Your task to perform on an android device: Search for pizza restaurants on Maps Image 0: 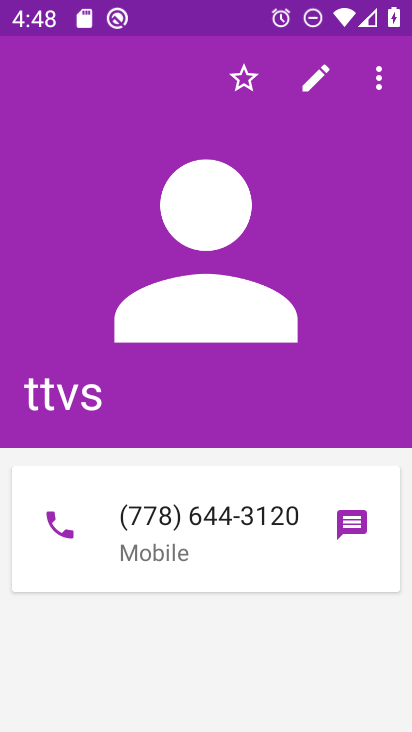
Step 0: press home button
Your task to perform on an android device: Search for pizza restaurants on Maps Image 1: 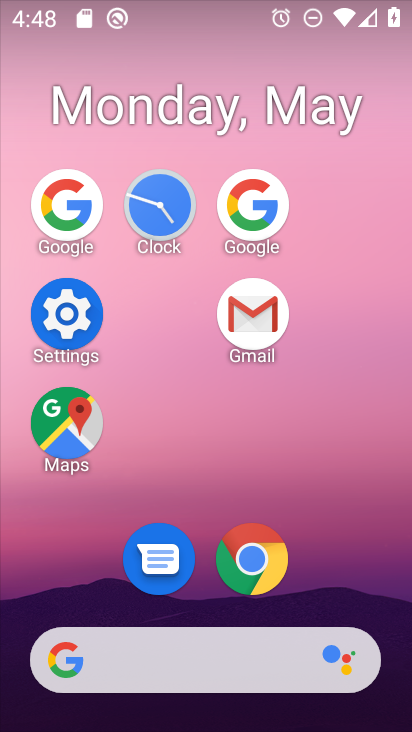
Step 1: click (83, 417)
Your task to perform on an android device: Search for pizza restaurants on Maps Image 2: 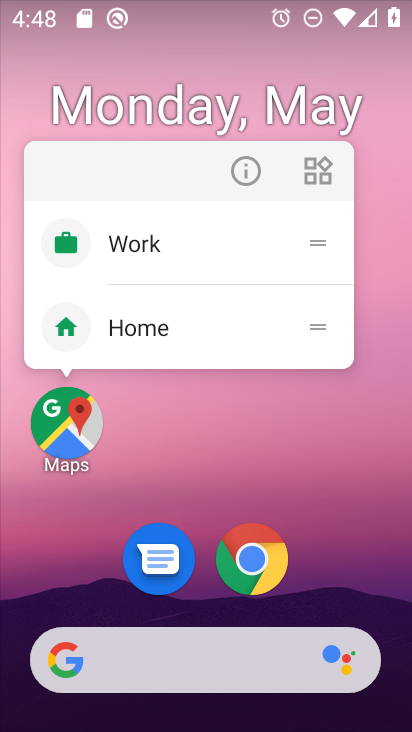
Step 2: click (17, 455)
Your task to perform on an android device: Search for pizza restaurants on Maps Image 3: 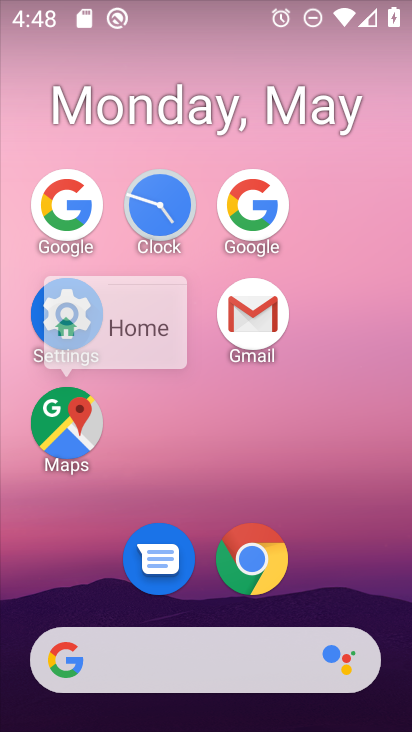
Step 3: click (98, 415)
Your task to perform on an android device: Search for pizza restaurants on Maps Image 4: 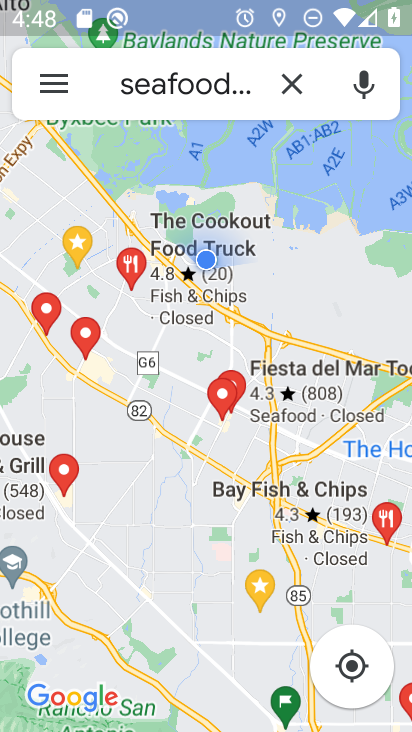
Step 4: click (150, 78)
Your task to perform on an android device: Search for pizza restaurants on Maps Image 5: 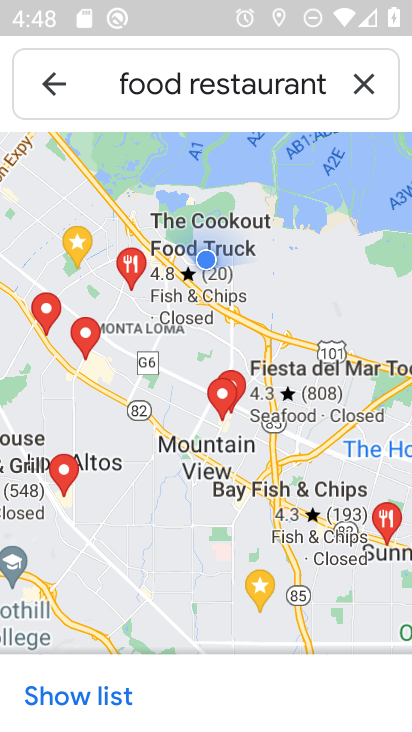
Step 5: click (299, 79)
Your task to perform on an android device: Search for pizza restaurants on Maps Image 6: 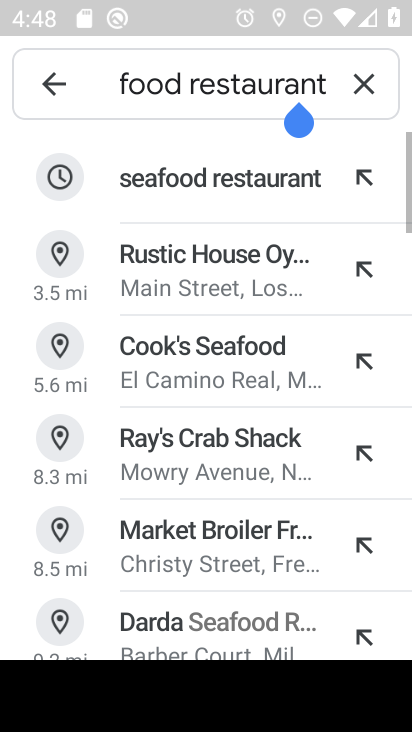
Step 6: click (364, 80)
Your task to perform on an android device: Search for pizza restaurants on Maps Image 7: 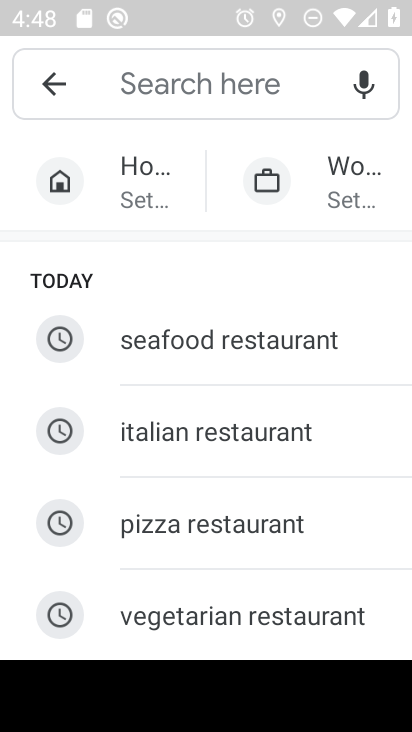
Step 7: click (265, 501)
Your task to perform on an android device: Search for pizza restaurants on Maps Image 8: 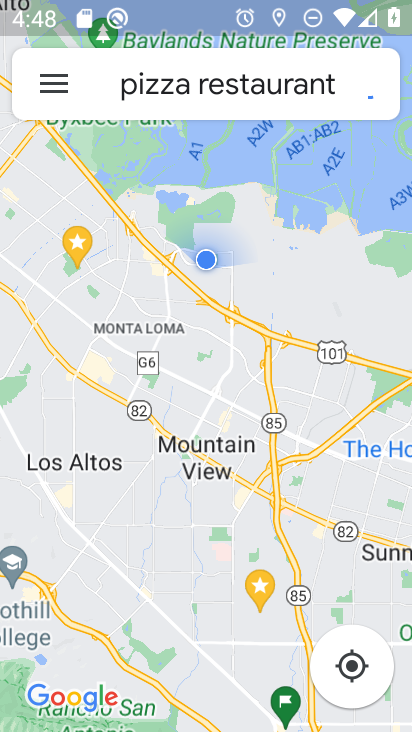
Step 8: task complete